Your task to perform on an android device: Open Yahoo.com Image 0: 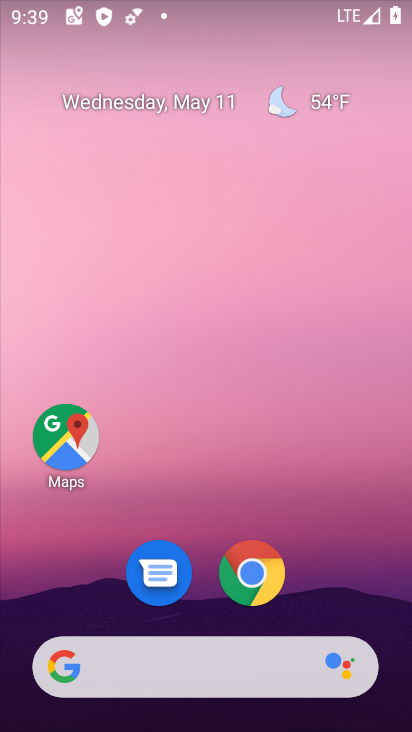
Step 0: drag from (113, 611) to (194, 0)
Your task to perform on an android device: Open Yahoo.com Image 1: 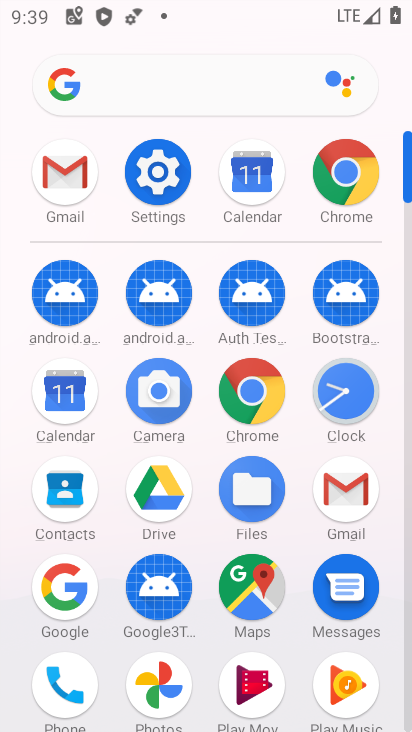
Step 1: click (246, 384)
Your task to perform on an android device: Open Yahoo.com Image 2: 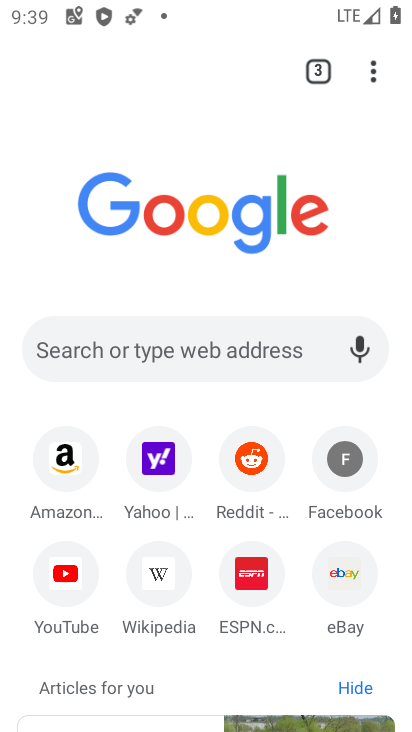
Step 2: click (290, 67)
Your task to perform on an android device: Open Yahoo.com Image 3: 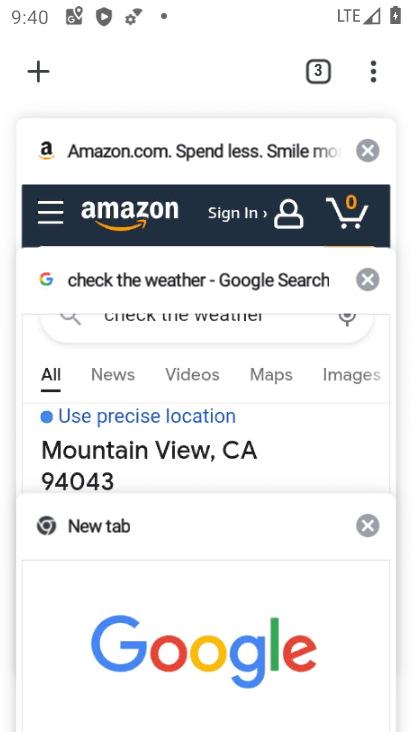
Step 3: click (369, 62)
Your task to perform on an android device: Open Yahoo.com Image 4: 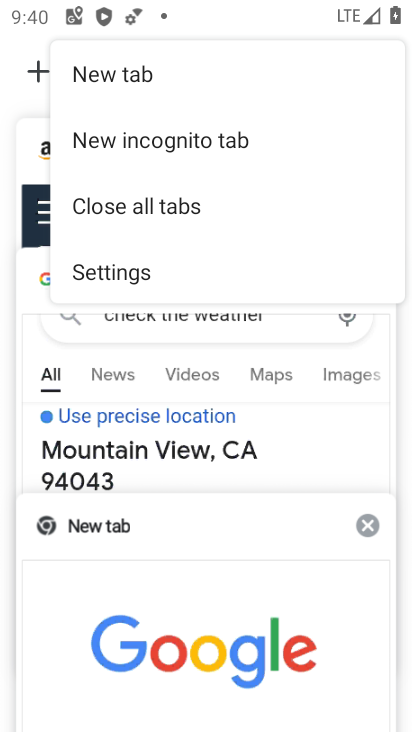
Step 4: click (130, 81)
Your task to perform on an android device: Open Yahoo.com Image 5: 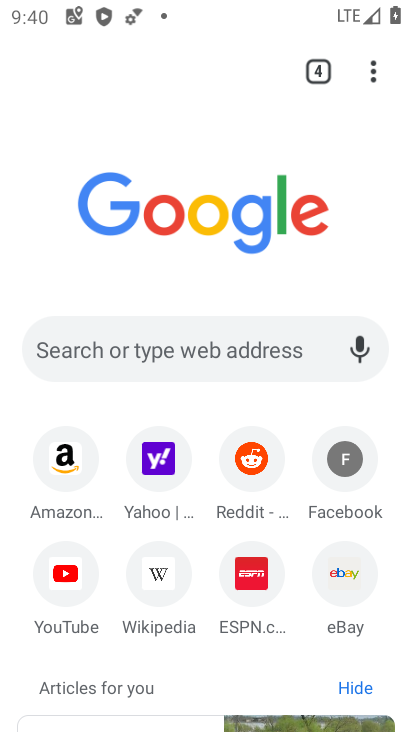
Step 5: click (156, 457)
Your task to perform on an android device: Open Yahoo.com Image 6: 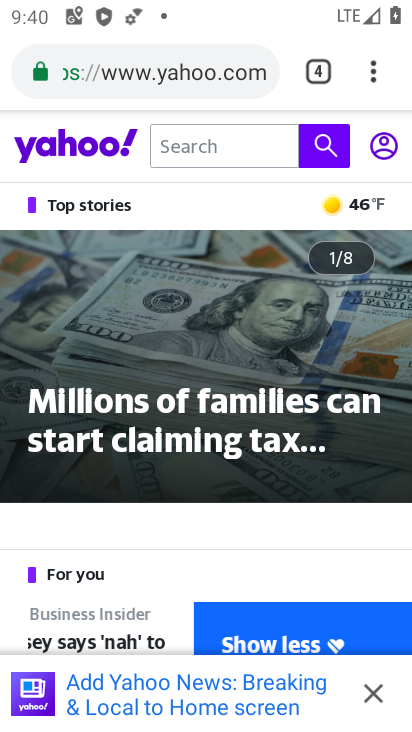
Step 6: task complete